Your task to perform on an android device: See recent photos Image 0: 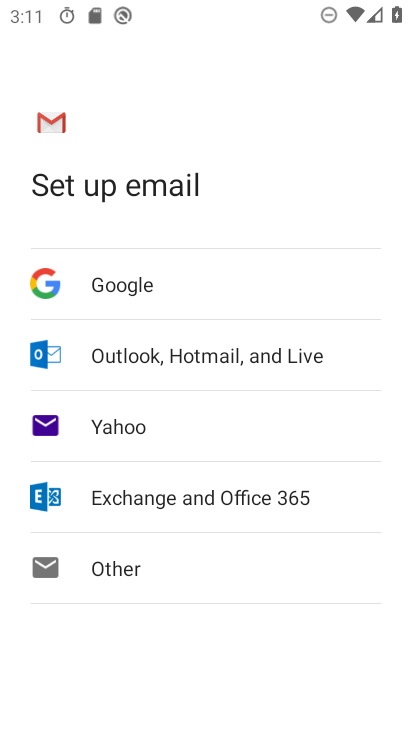
Step 0: press home button
Your task to perform on an android device: See recent photos Image 1: 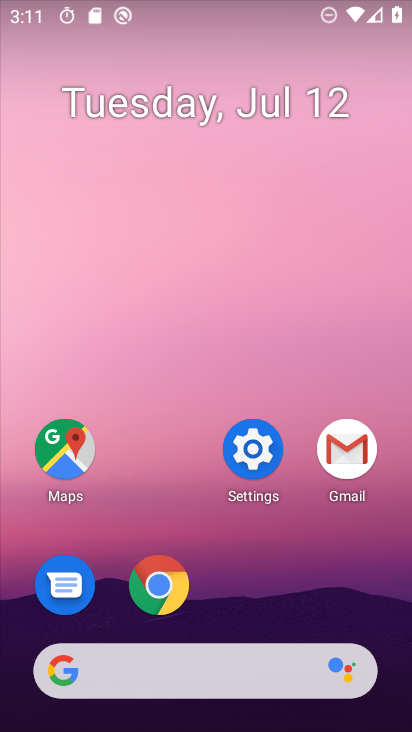
Step 1: drag from (397, 573) to (348, 185)
Your task to perform on an android device: See recent photos Image 2: 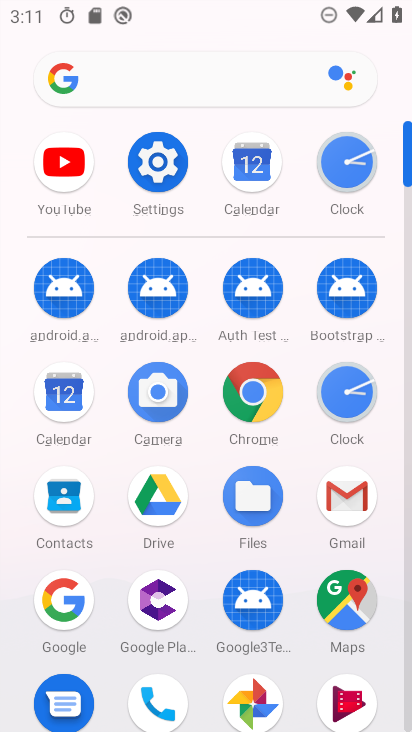
Step 2: click (260, 678)
Your task to perform on an android device: See recent photos Image 3: 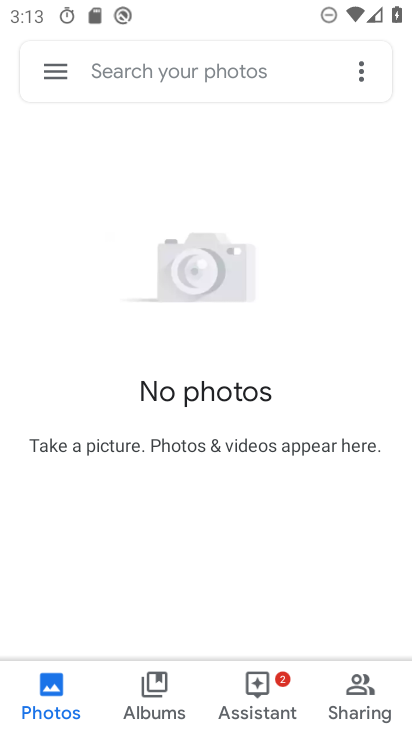
Step 3: task complete